Your task to perform on an android device: turn vacation reply on in the gmail app Image 0: 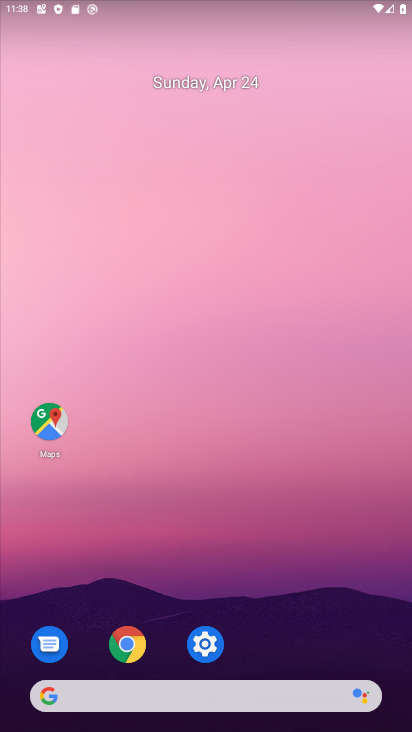
Step 0: drag from (263, 685) to (174, 135)
Your task to perform on an android device: turn vacation reply on in the gmail app Image 1: 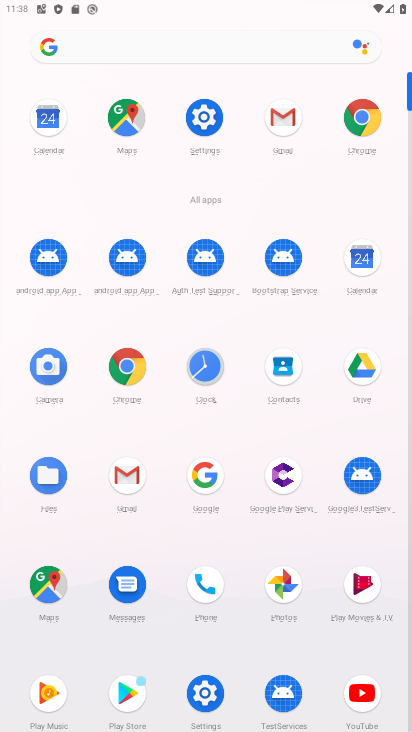
Step 1: click (124, 474)
Your task to perform on an android device: turn vacation reply on in the gmail app Image 2: 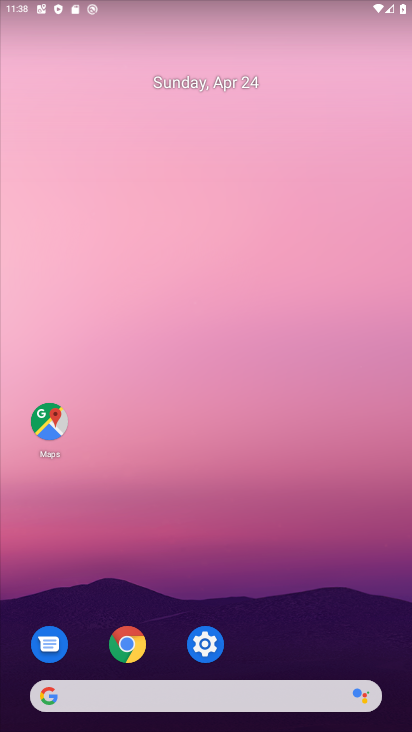
Step 2: click (166, 76)
Your task to perform on an android device: turn vacation reply on in the gmail app Image 3: 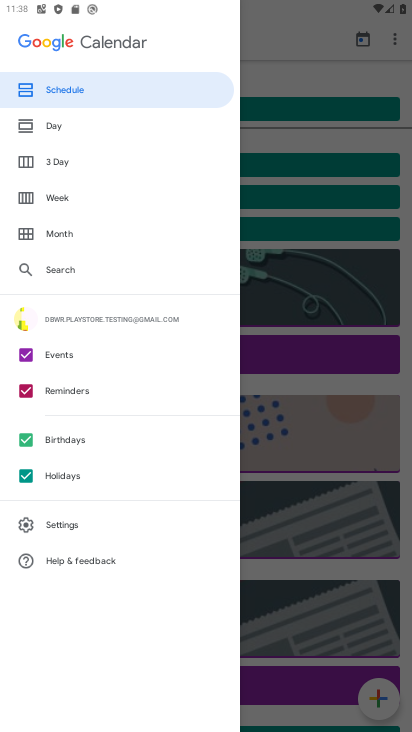
Step 3: click (305, 437)
Your task to perform on an android device: turn vacation reply on in the gmail app Image 4: 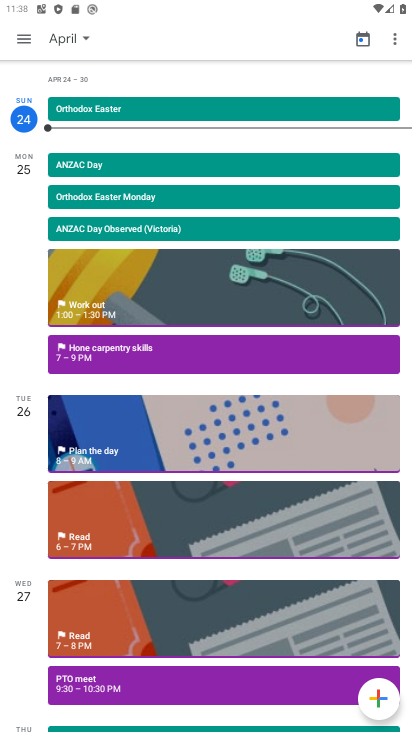
Step 4: drag from (148, 409) to (112, 16)
Your task to perform on an android device: turn vacation reply on in the gmail app Image 5: 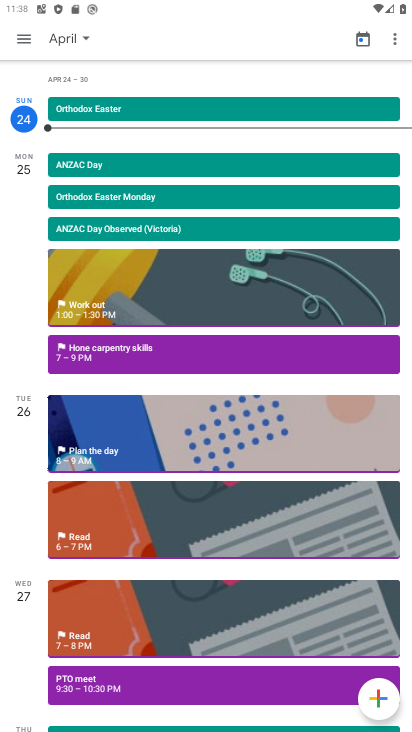
Step 5: drag from (194, 463) to (62, 101)
Your task to perform on an android device: turn vacation reply on in the gmail app Image 6: 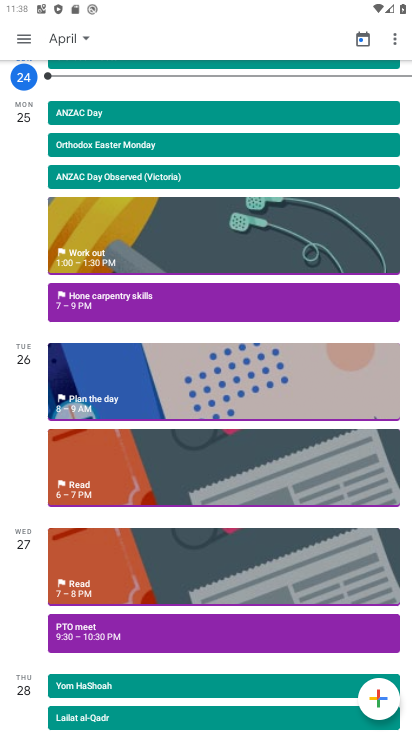
Step 6: press home button
Your task to perform on an android device: turn vacation reply on in the gmail app Image 7: 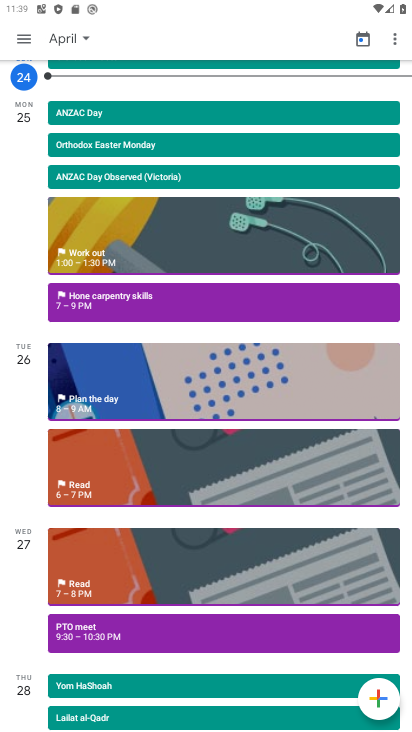
Step 7: press home button
Your task to perform on an android device: turn vacation reply on in the gmail app Image 8: 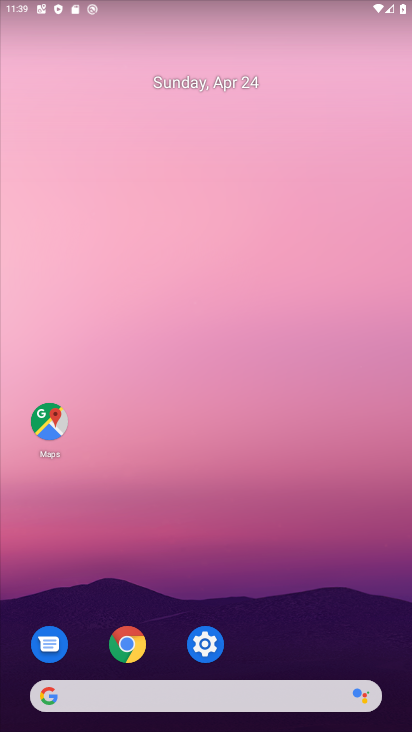
Step 8: drag from (255, 542) to (112, 17)
Your task to perform on an android device: turn vacation reply on in the gmail app Image 9: 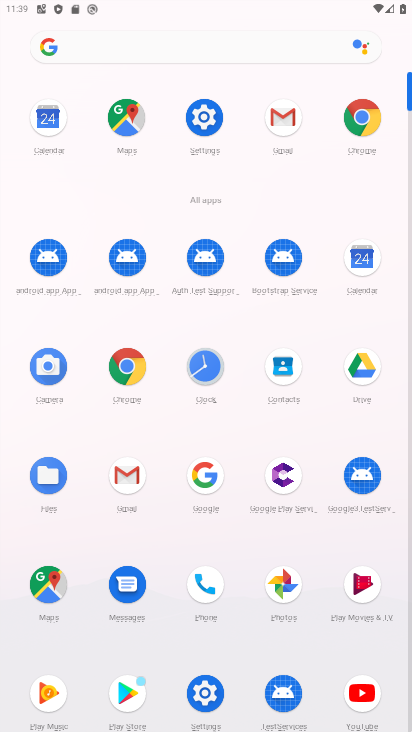
Step 9: click (285, 112)
Your task to perform on an android device: turn vacation reply on in the gmail app Image 10: 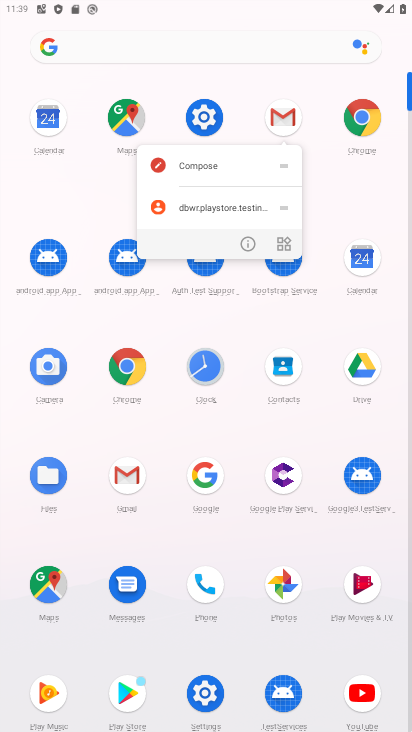
Step 10: click (288, 116)
Your task to perform on an android device: turn vacation reply on in the gmail app Image 11: 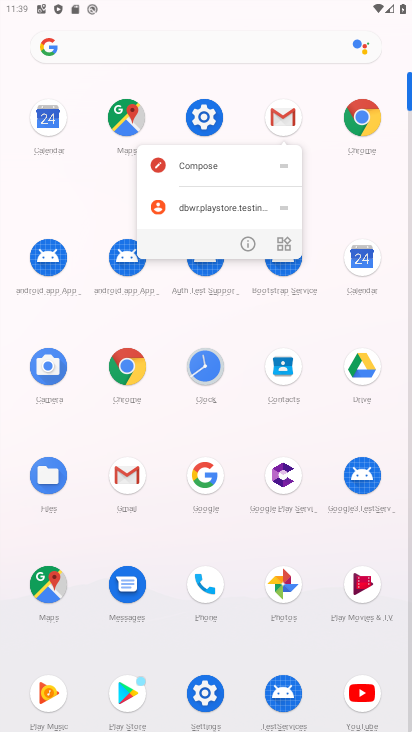
Step 11: click (352, 207)
Your task to perform on an android device: turn vacation reply on in the gmail app Image 12: 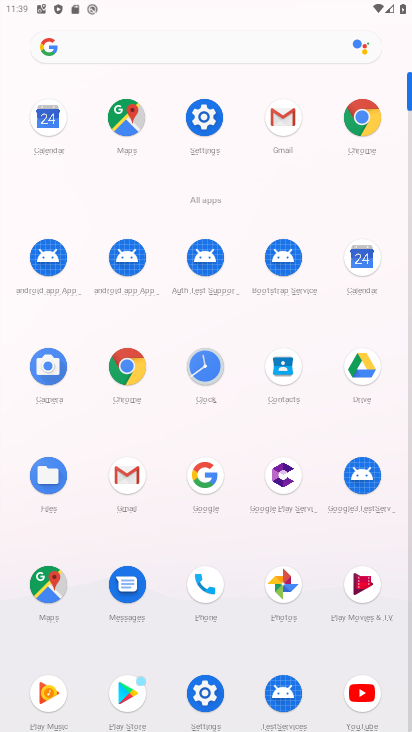
Step 12: click (274, 122)
Your task to perform on an android device: turn vacation reply on in the gmail app Image 13: 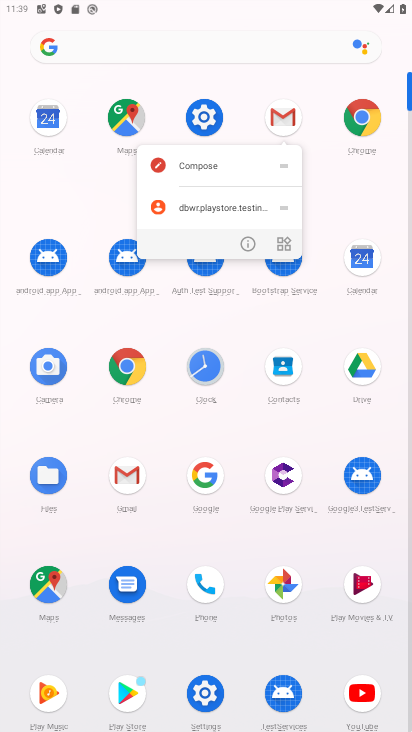
Step 13: click (275, 131)
Your task to perform on an android device: turn vacation reply on in the gmail app Image 14: 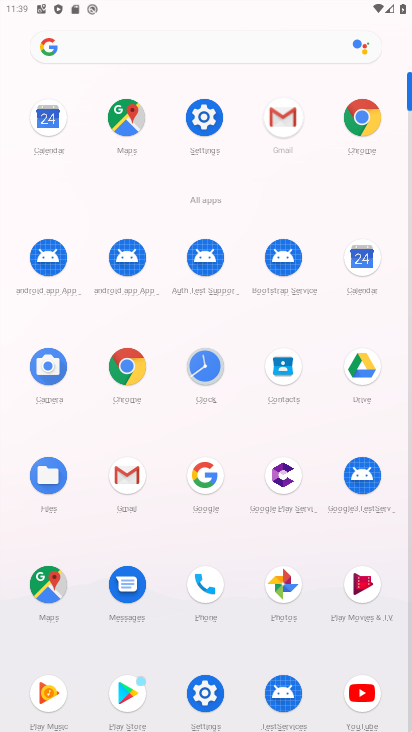
Step 14: click (275, 131)
Your task to perform on an android device: turn vacation reply on in the gmail app Image 15: 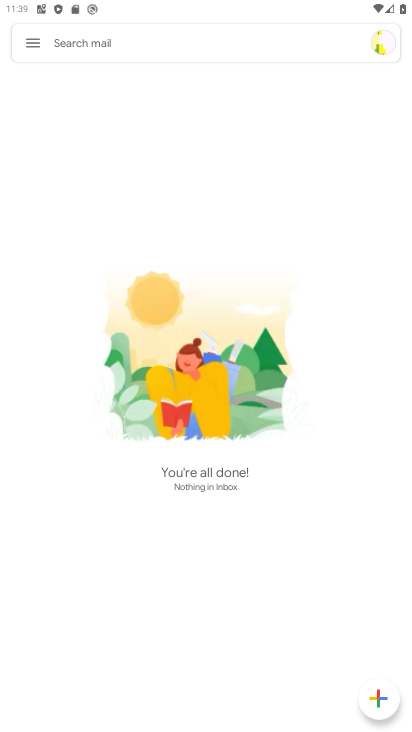
Step 15: click (39, 45)
Your task to perform on an android device: turn vacation reply on in the gmail app Image 16: 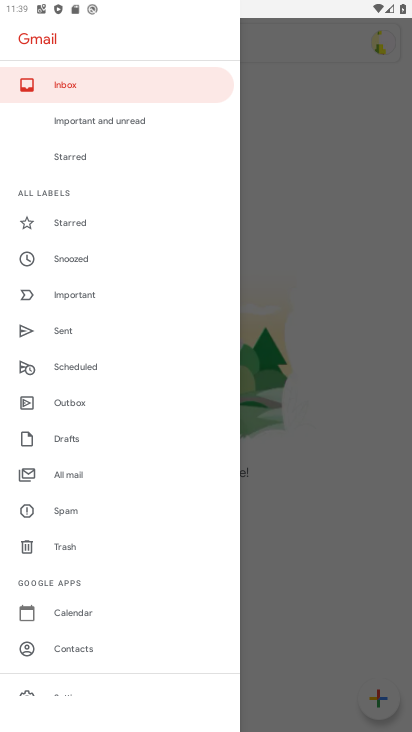
Step 16: drag from (100, 561) to (11, 8)
Your task to perform on an android device: turn vacation reply on in the gmail app Image 17: 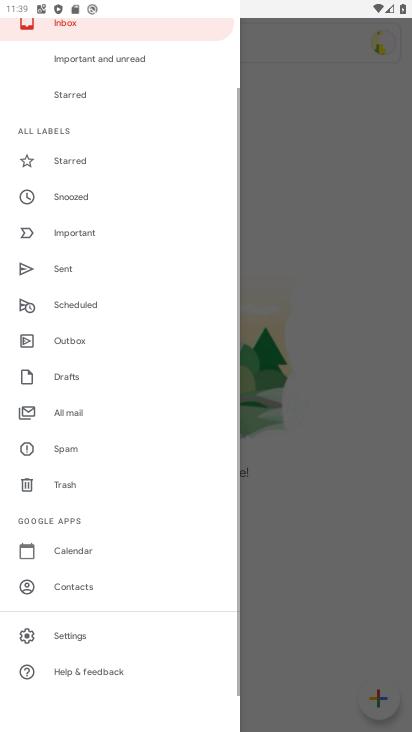
Step 17: drag from (122, 542) to (25, 6)
Your task to perform on an android device: turn vacation reply on in the gmail app Image 18: 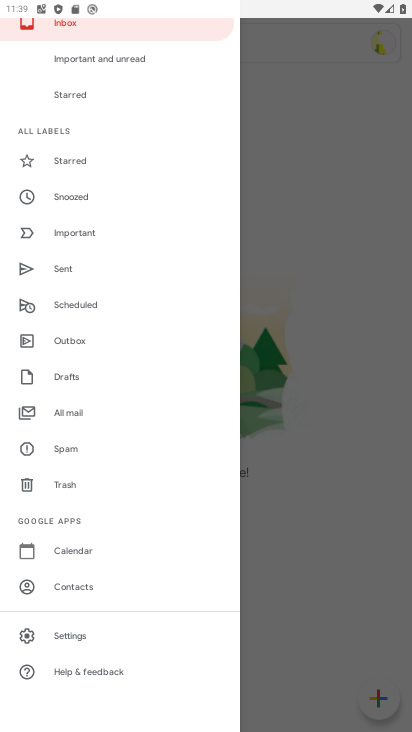
Step 18: click (72, 637)
Your task to perform on an android device: turn vacation reply on in the gmail app Image 19: 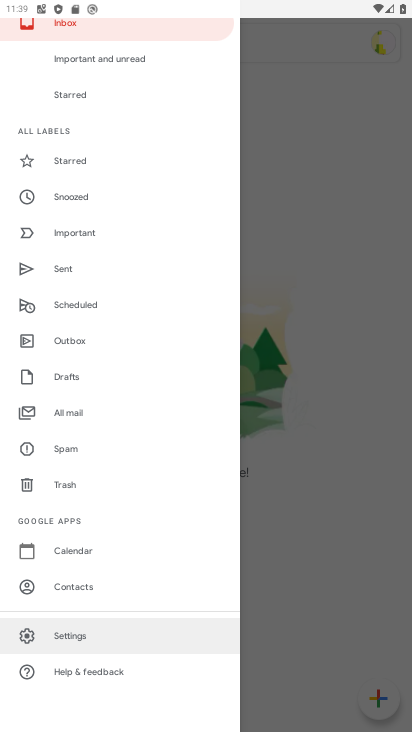
Step 19: click (72, 638)
Your task to perform on an android device: turn vacation reply on in the gmail app Image 20: 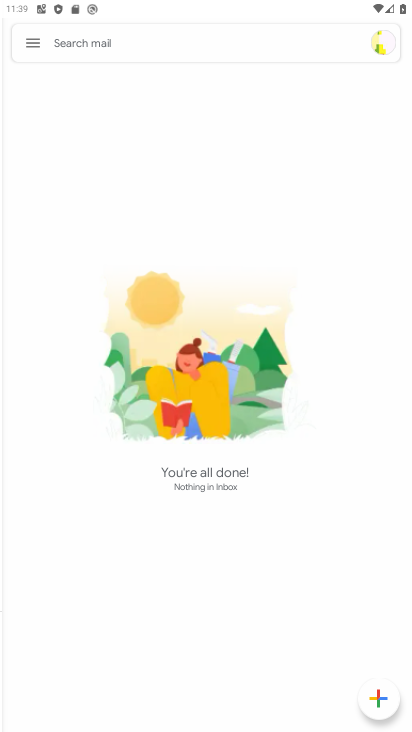
Step 20: click (73, 639)
Your task to perform on an android device: turn vacation reply on in the gmail app Image 21: 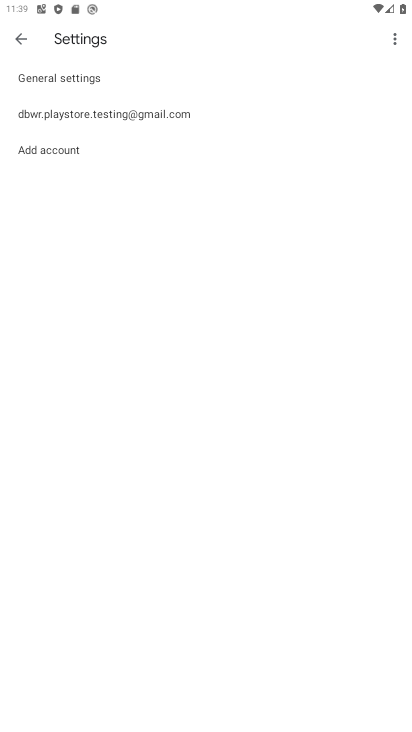
Step 21: click (73, 113)
Your task to perform on an android device: turn vacation reply on in the gmail app Image 22: 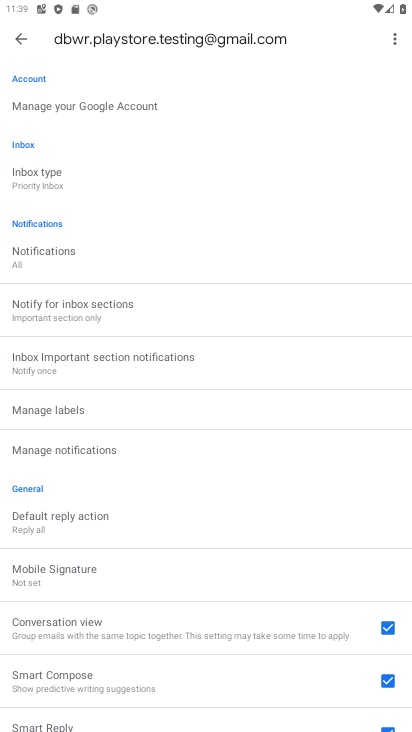
Step 22: drag from (197, 487) to (172, 0)
Your task to perform on an android device: turn vacation reply on in the gmail app Image 23: 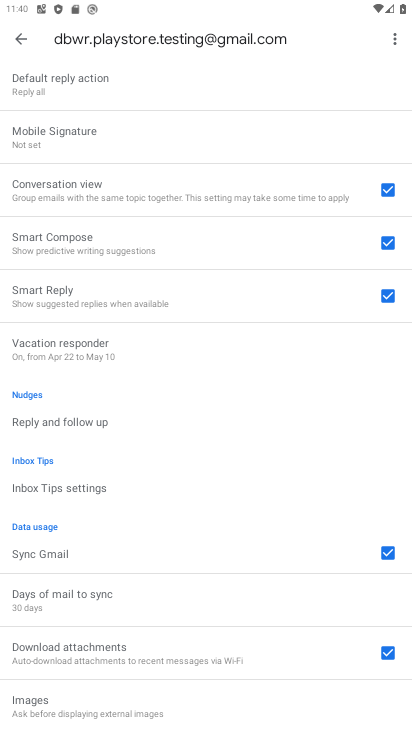
Step 23: click (79, 344)
Your task to perform on an android device: turn vacation reply on in the gmail app Image 24: 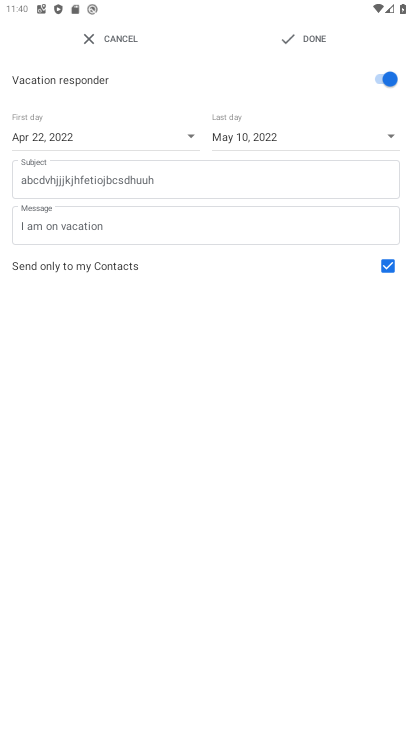
Step 24: task complete